Your task to perform on an android device: open device folders in google photos Image 0: 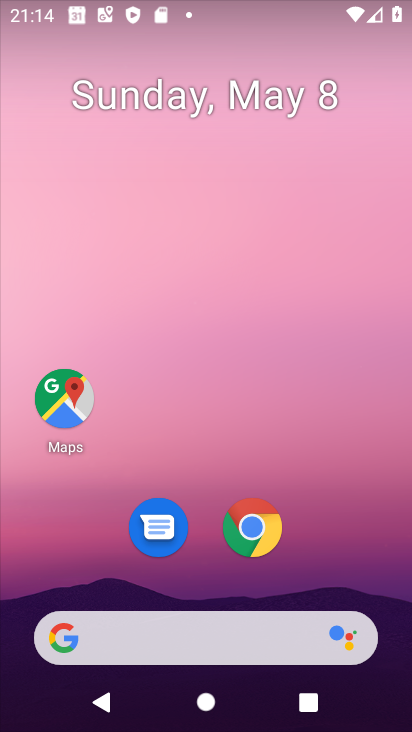
Step 0: drag from (213, 562) to (198, 132)
Your task to perform on an android device: open device folders in google photos Image 1: 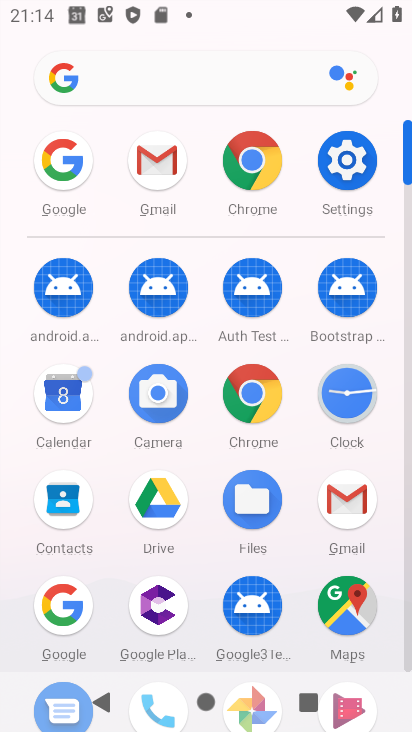
Step 1: drag from (212, 613) to (206, 270)
Your task to perform on an android device: open device folders in google photos Image 2: 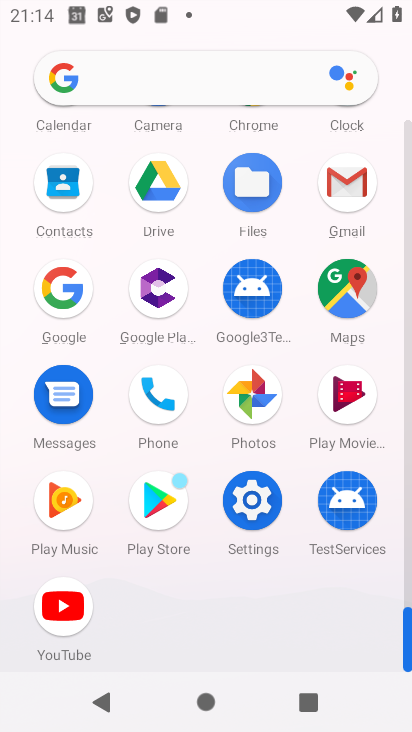
Step 2: click (245, 384)
Your task to perform on an android device: open device folders in google photos Image 3: 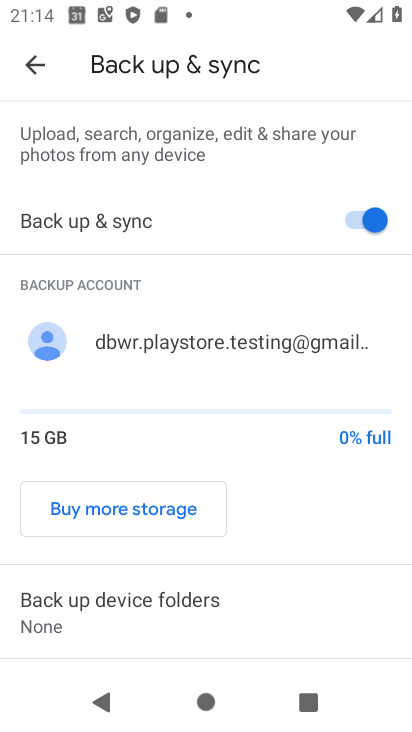
Step 3: press back button
Your task to perform on an android device: open device folders in google photos Image 4: 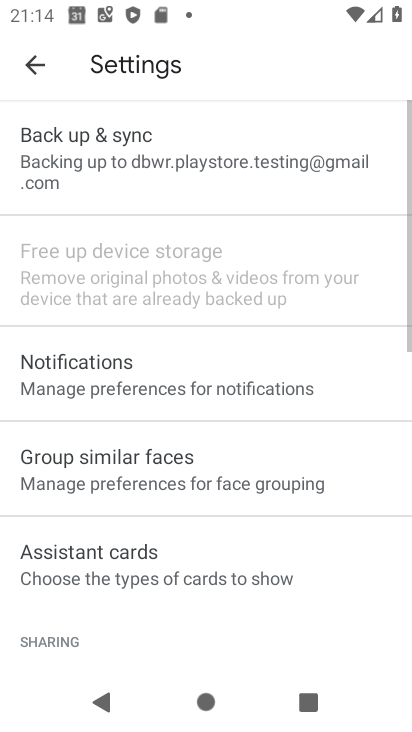
Step 4: press back button
Your task to perform on an android device: open device folders in google photos Image 5: 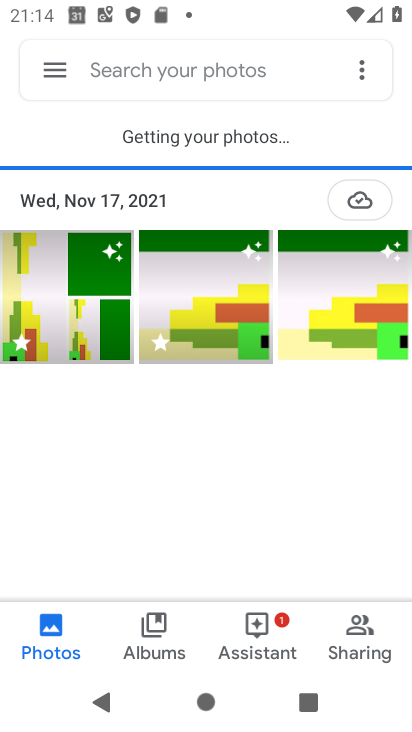
Step 5: click (59, 75)
Your task to perform on an android device: open device folders in google photos Image 6: 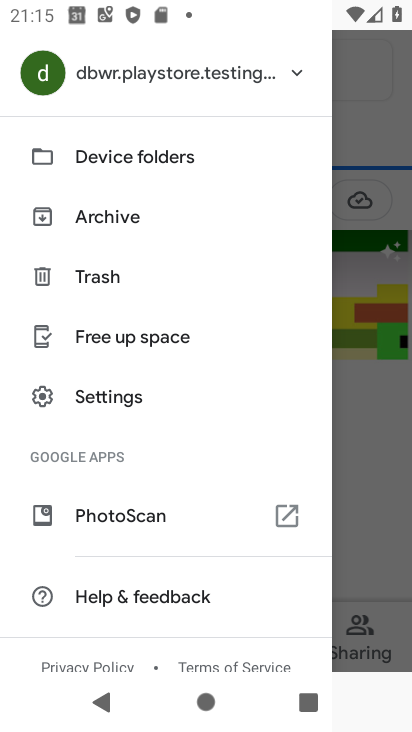
Step 6: click (145, 155)
Your task to perform on an android device: open device folders in google photos Image 7: 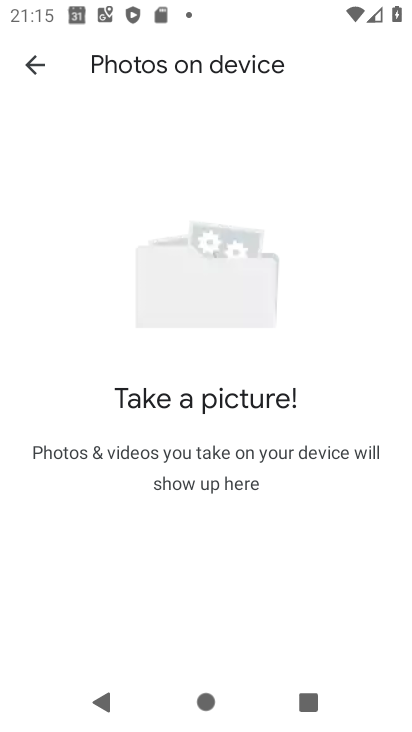
Step 7: task complete